Your task to perform on an android device: install app "Duolingo: language lessons" Image 0: 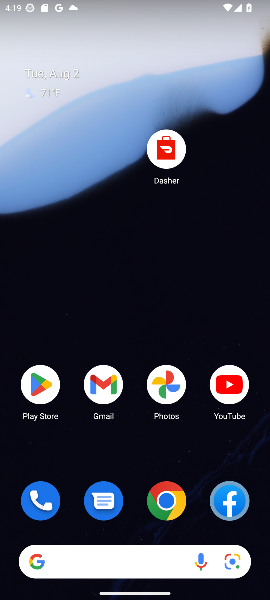
Step 0: click (30, 398)
Your task to perform on an android device: install app "Duolingo: language lessons" Image 1: 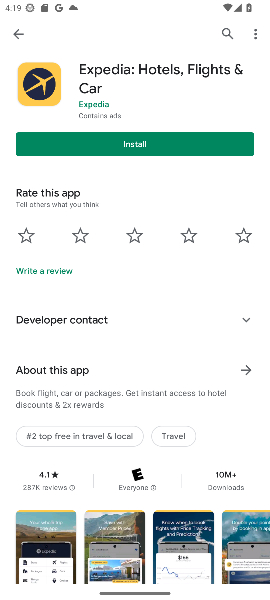
Step 1: click (224, 29)
Your task to perform on an android device: install app "Duolingo: language lessons" Image 2: 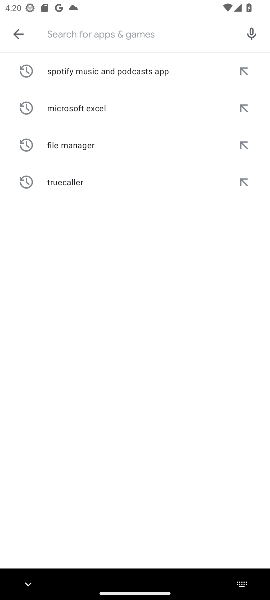
Step 2: type "Duolingo: language lessons"
Your task to perform on an android device: install app "Duolingo: language lessons" Image 3: 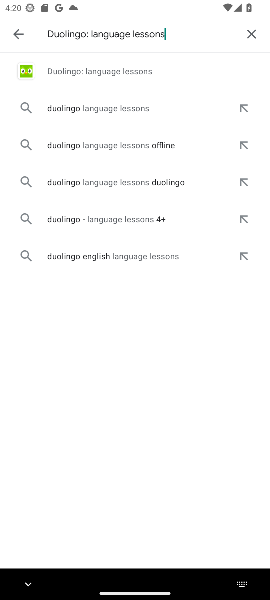
Step 3: click (104, 73)
Your task to perform on an android device: install app "Duolingo: language lessons" Image 4: 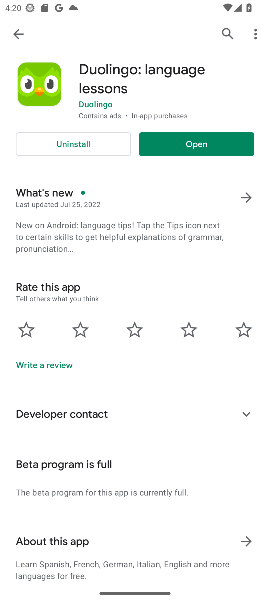
Step 4: task complete